Your task to perform on an android device: change the upload size in google photos Image 0: 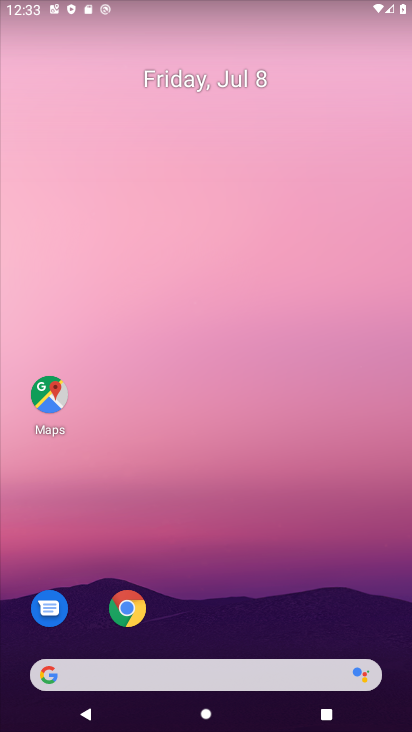
Step 0: drag from (332, 596) to (281, 117)
Your task to perform on an android device: change the upload size in google photos Image 1: 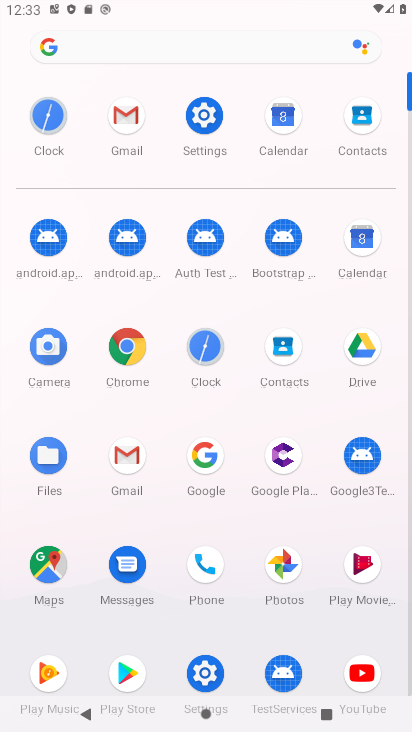
Step 1: click (260, 572)
Your task to perform on an android device: change the upload size in google photos Image 2: 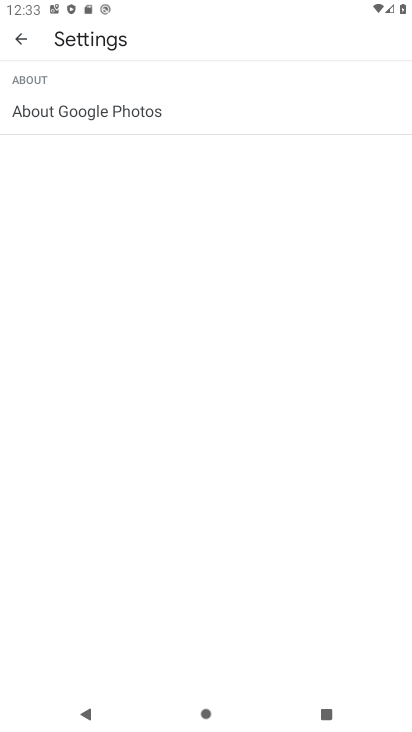
Step 2: click (20, 41)
Your task to perform on an android device: change the upload size in google photos Image 3: 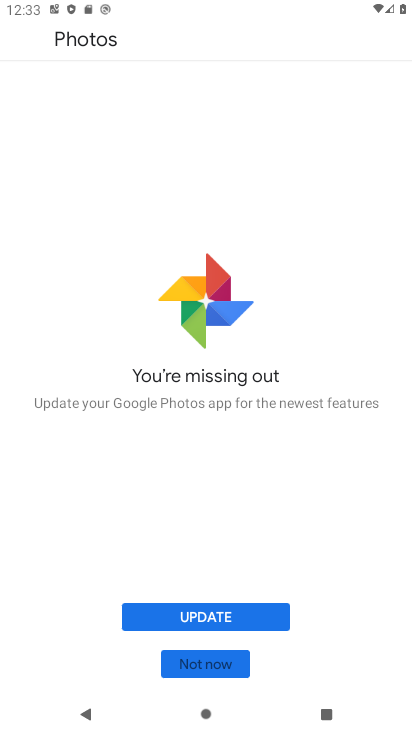
Step 3: click (20, 41)
Your task to perform on an android device: change the upload size in google photos Image 4: 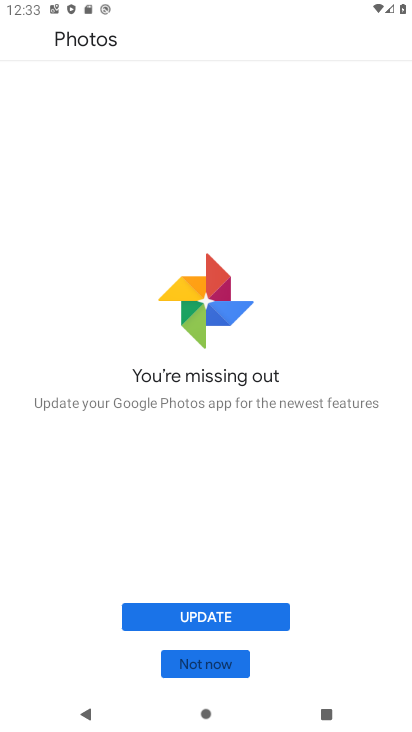
Step 4: click (194, 617)
Your task to perform on an android device: change the upload size in google photos Image 5: 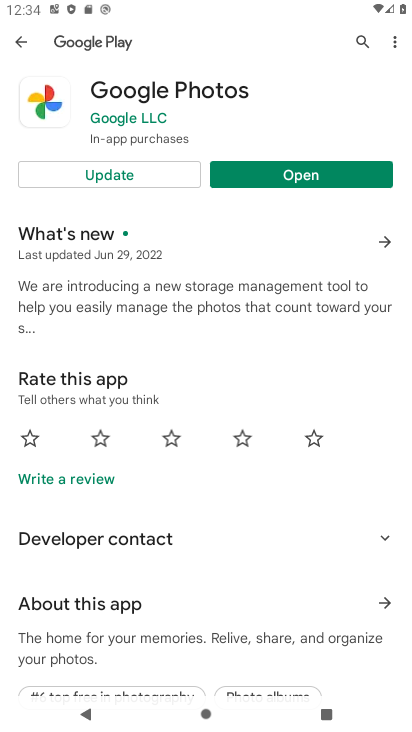
Step 5: click (140, 165)
Your task to perform on an android device: change the upload size in google photos Image 6: 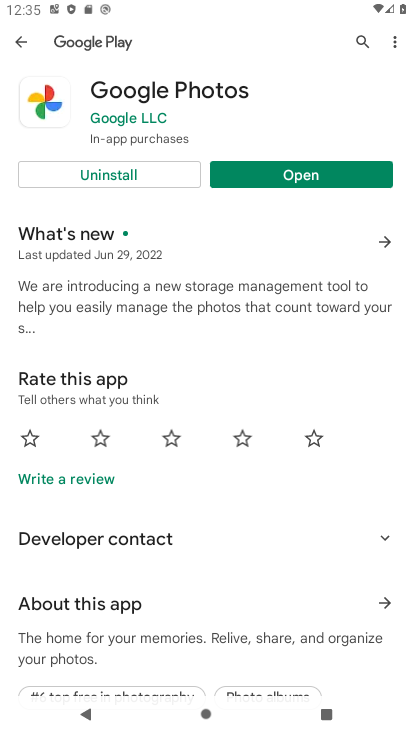
Step 6: click (311, 158)
Your task to perform on an android device: change the upload size in google photos Image 7: 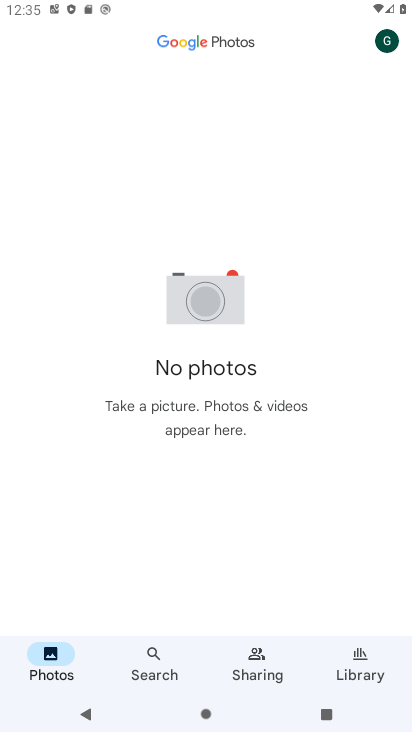
Step 7: task complete